Your task to perform on an android device: Go to notification settings Image 0: 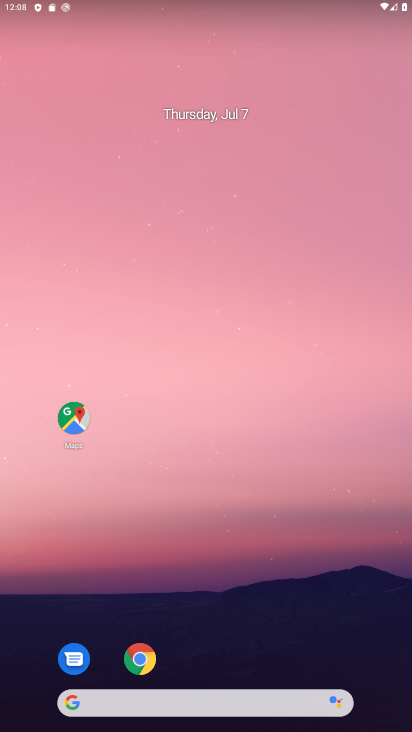
Step 0: drag from (318, 551) to (260, 68)
Your task to perform on an android device: Go to notification settings Image 1: 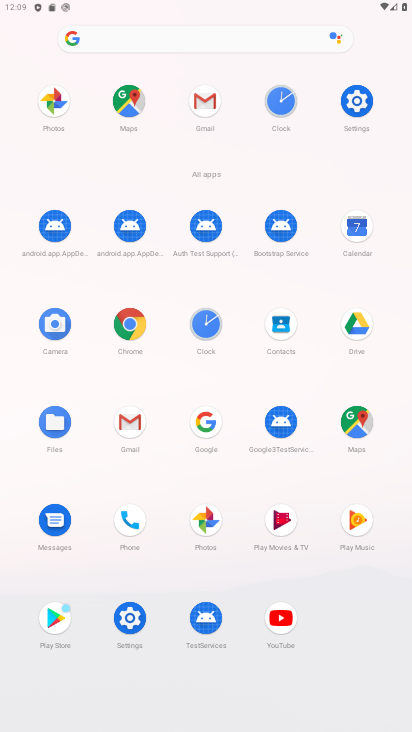
Step 1: click (354, 101)
Your task to perform on an android device: Go to notification settings Image 2: 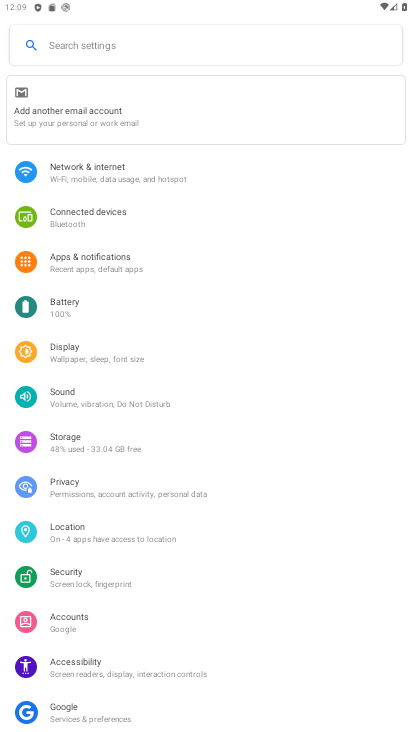
Step 2: click (102, 258)
Your task to perform on an android device: Go to notification settings Image 3: 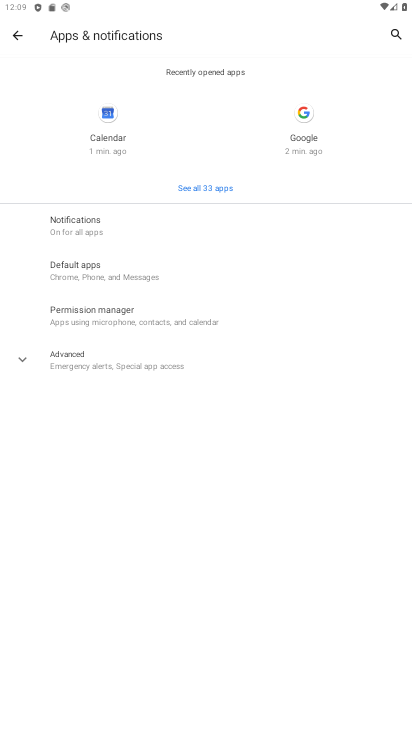
Step 3: task complete